Your task to perform on an android device: Set the phone to "Do not disturb". Image 0: 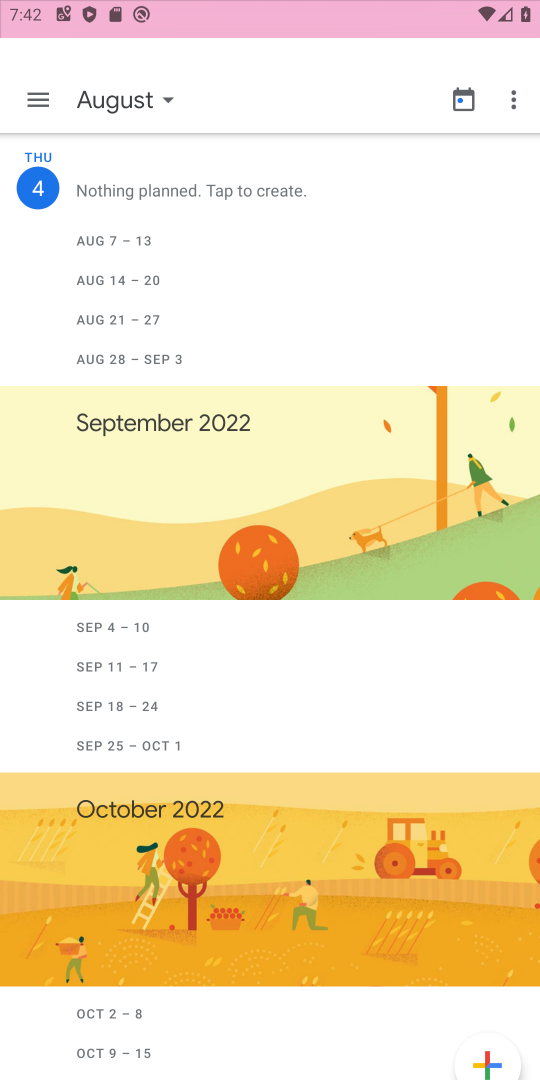
Step 0: press home button
Your task to perform on an android device: Set the phone to "Do not disturb". Image 1: 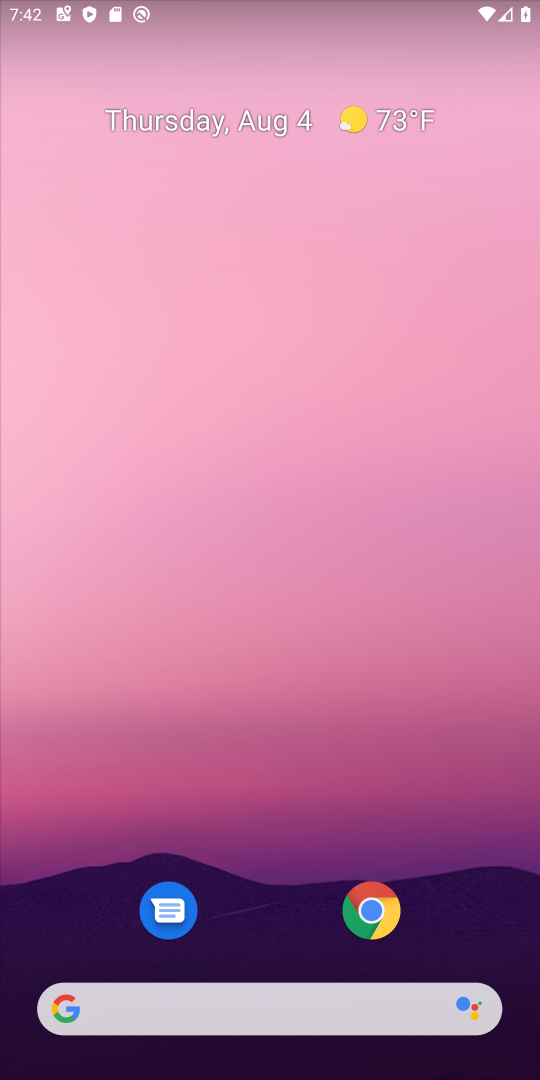
Step 1: press home button
Your task to perform on an android device: Set the phone to "Do not disturb". Image 2: 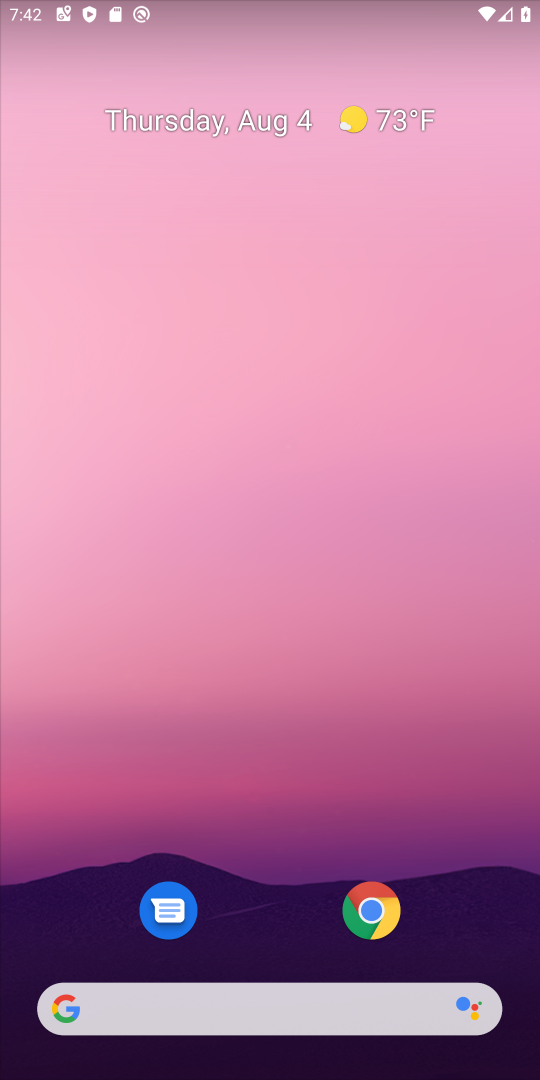
Step 2: drag from (308, 14) to (286, 743)
Your task to perform on an android device: Set the phone to "Do not disturb". Image 3: 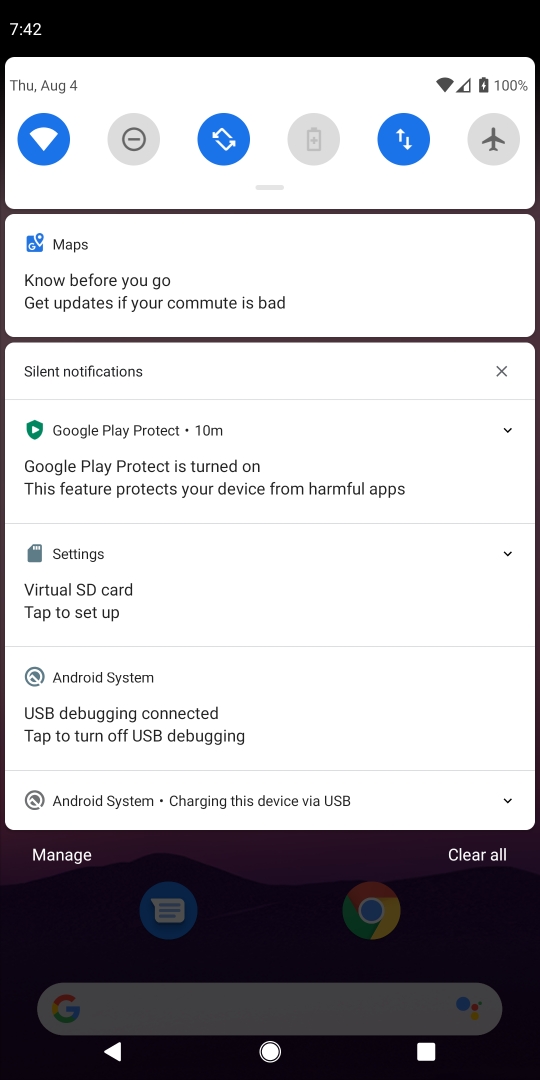
Step 3: click (142, 126)
Your task to perform on an android device: Set the phone to "Do not disturb". Image 4: 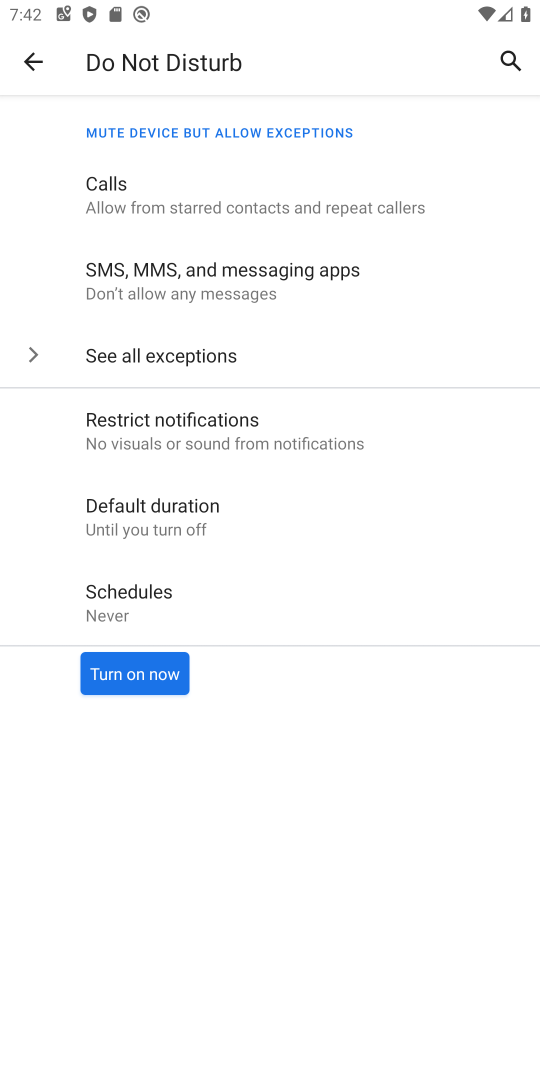
Step 4: click (119, 677)
Your task to perform on an android device: Set the phone to "Do not disturb". Image 5: 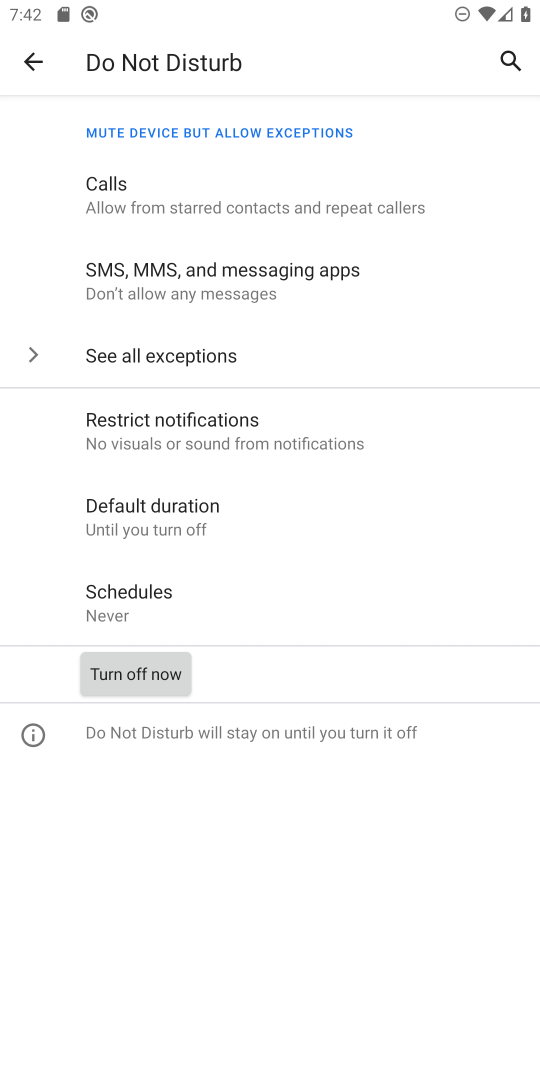
Step 5: task complete